Your task to perform on an android device: turn on wifi Image 0: 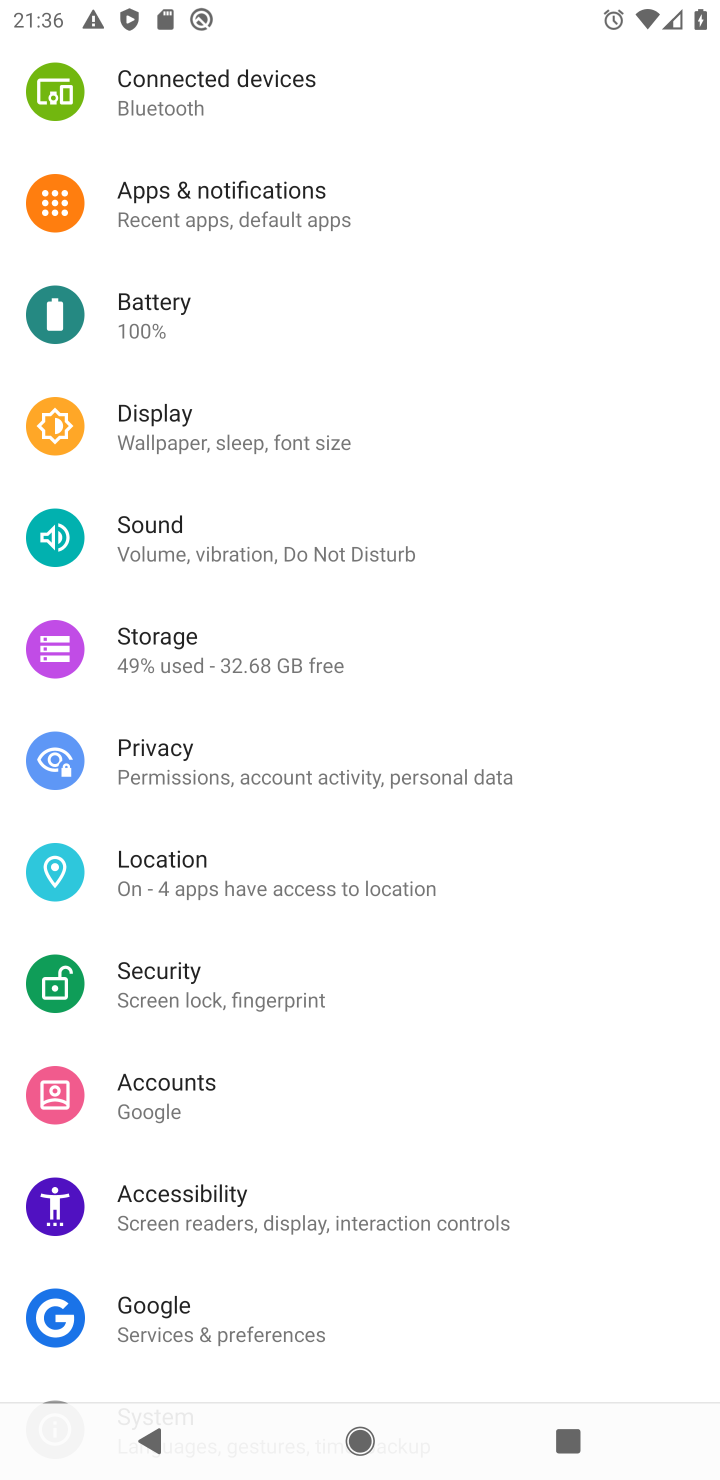
Step 0: drag from (65, 543) to (54, 1084)
Your task to perform on an android device: turn on wifi Image 1: 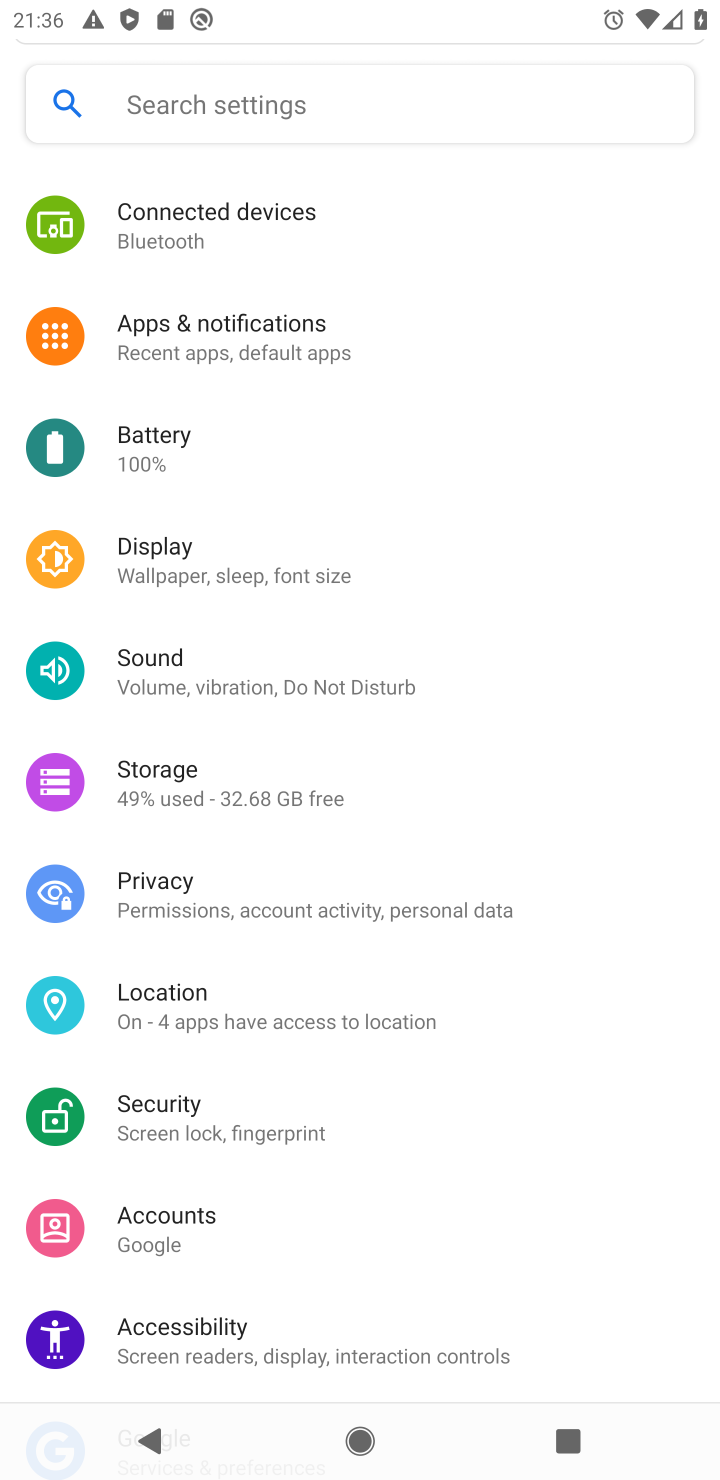
Step 1: drag from (247, 264) to (412, 1182)
Your task to perform on an android device: turn on wifi Image 2: 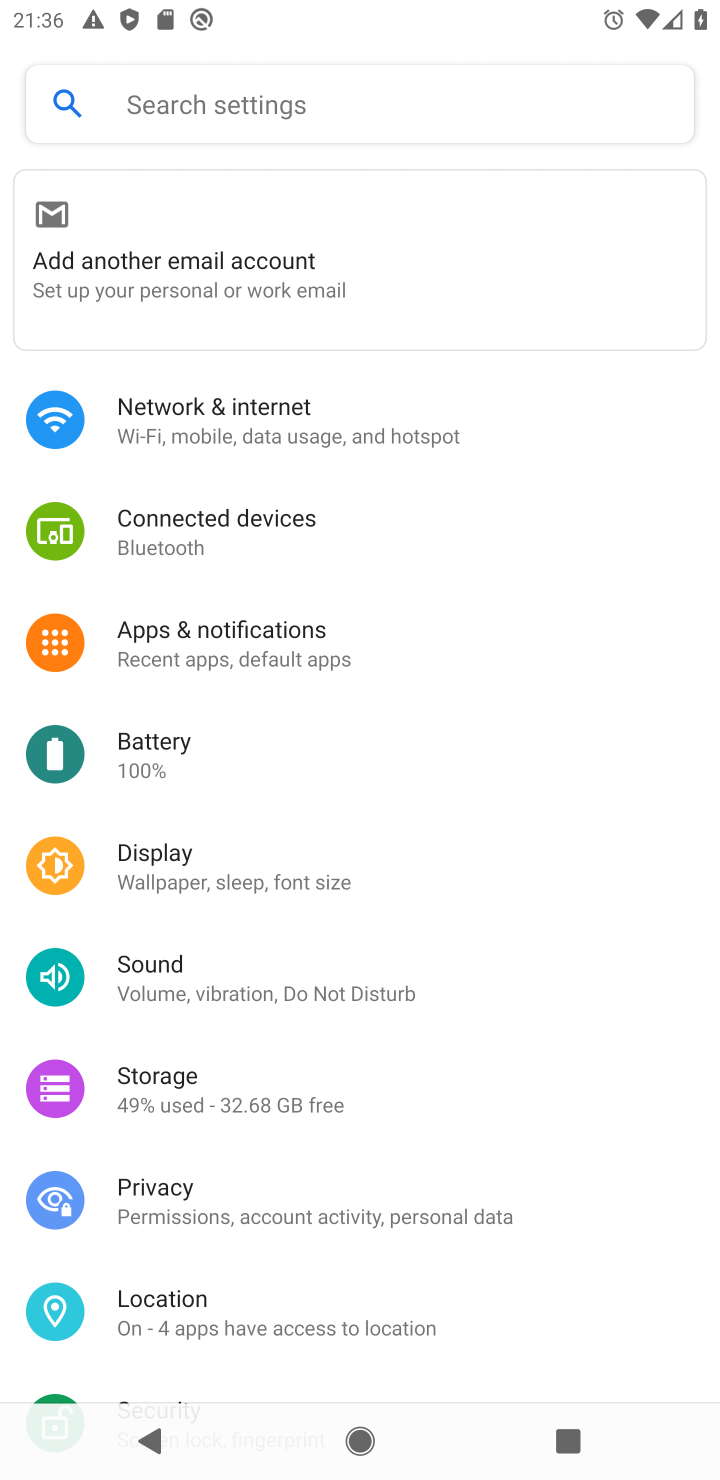
Step 2: click (223, 418)
Your task to perform on an android device: turn on wifi Image 3: 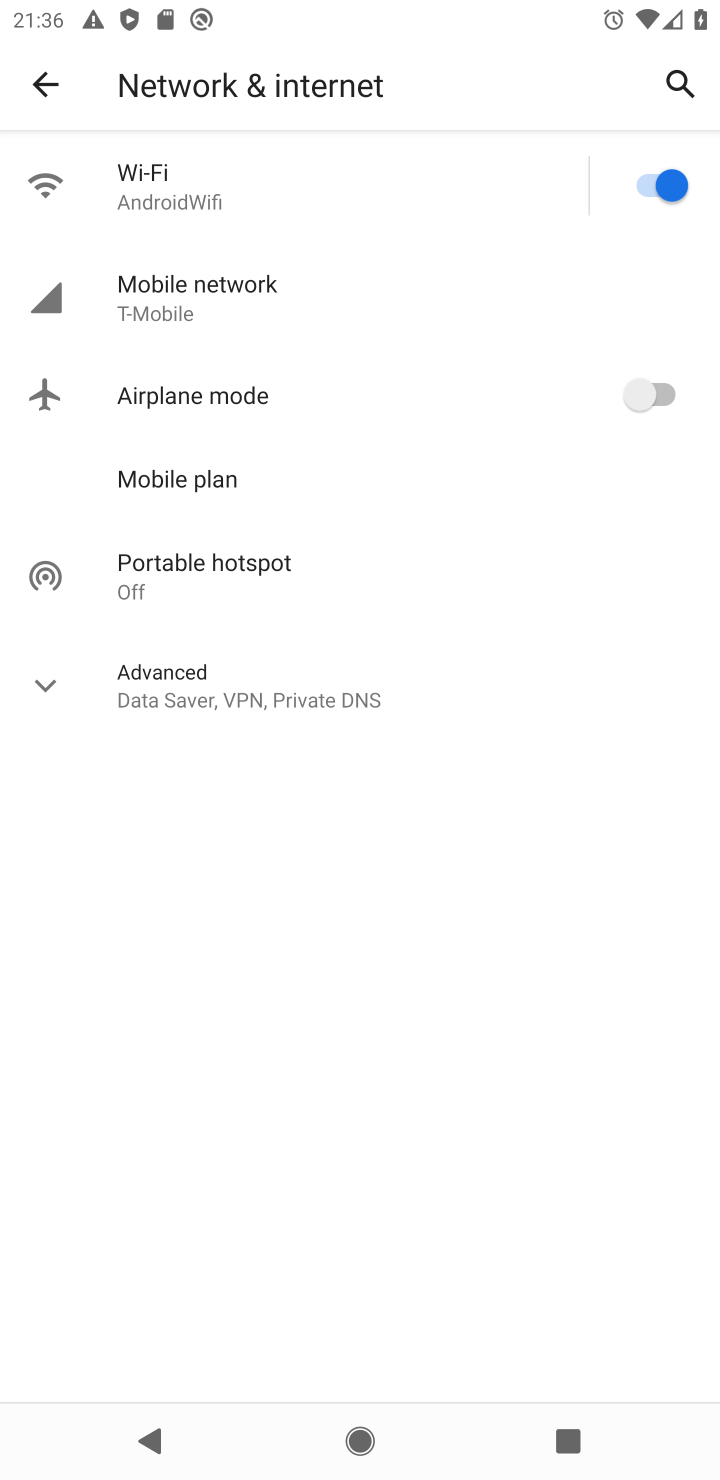
Step 3: task complete